Your task to perform on an android device: Open Youtube and go to "Your channel" Image 0: 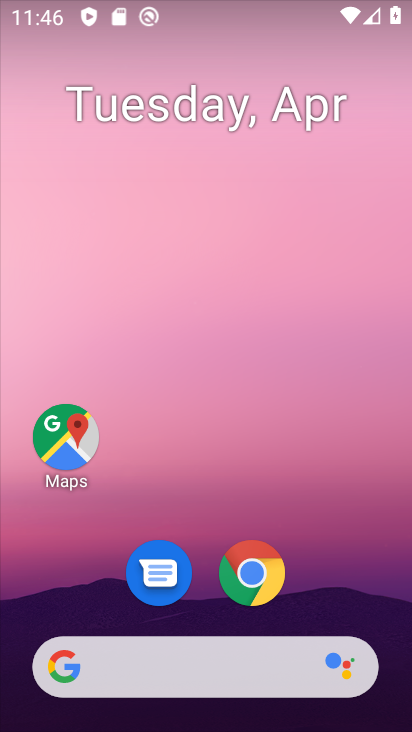
Step 0: drag from (370, 532) to (258, 82)
Your task to perform on an android device: Open Youtube and go to "Your channel" Image 1: 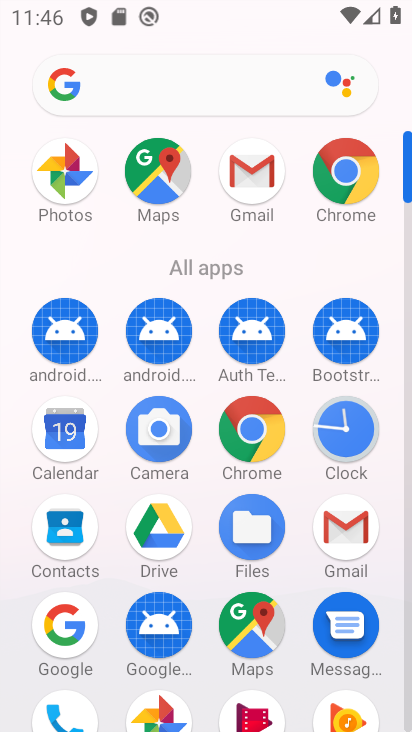
Step 1: click (406, 719)
Your task to perform on an android device: Open Youtube and go to "Your channel" Image 2: 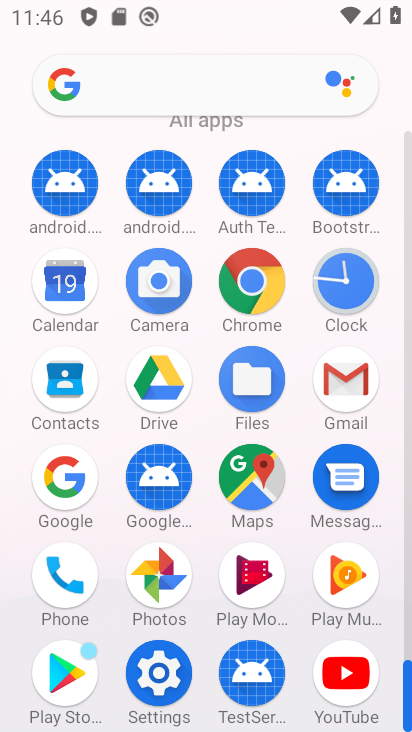
Step 2: click (338, 664)
Your task to perform on an android device: Open Youtube and go to "Your channel" Image 3: 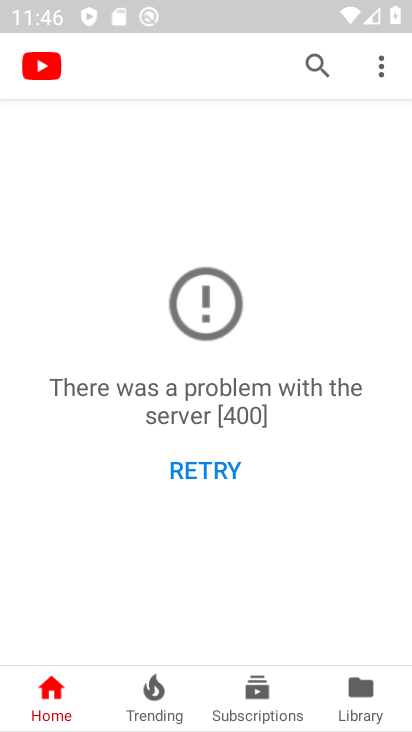
Step 3: click (386, 73)
Your task to perform on an android device: Open Youtube and go to "Your channel" Image 4: 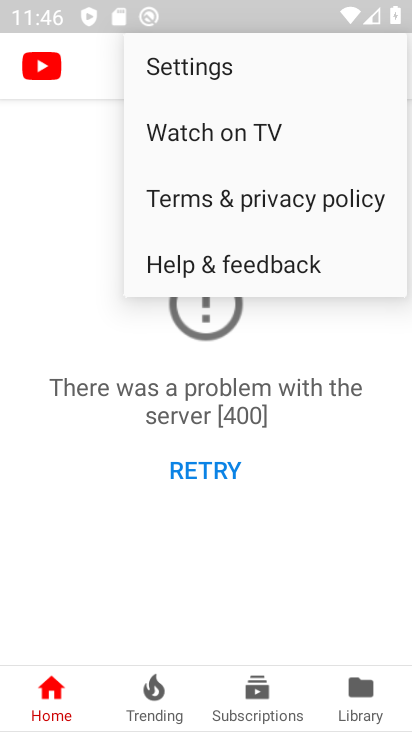
Step 4: click (364, 439)
Your task to perform on an android device: Open Youtube and go to "Your channel" Image 5: 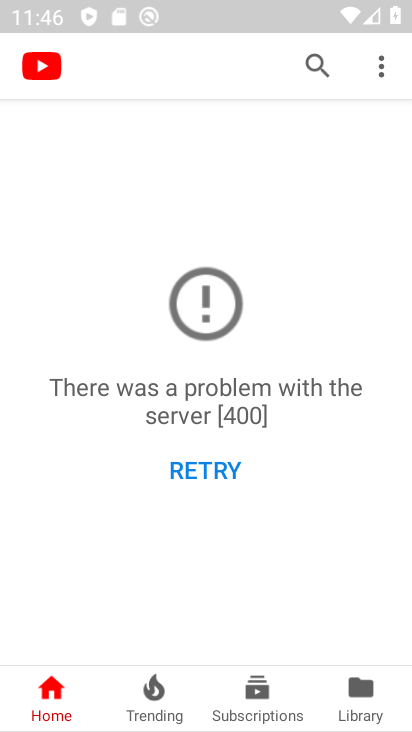
Step 5: click (362, 722)
Your task to perform on an android device: Open Youtube and go to "Your channel" Image 6: 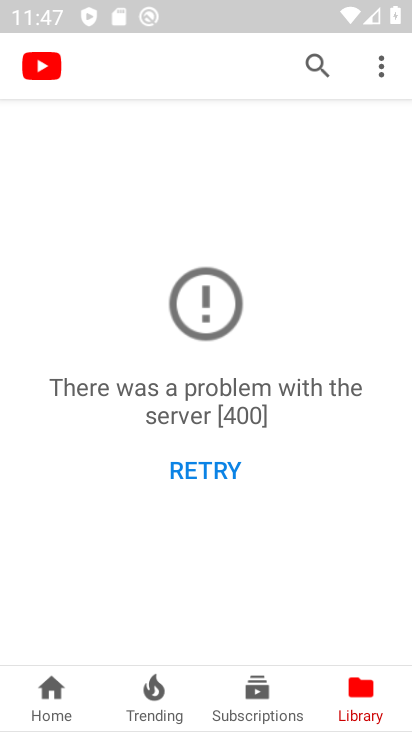
Step 6: task complete